Your task to perform on an android device: Go to Maps Image 0: 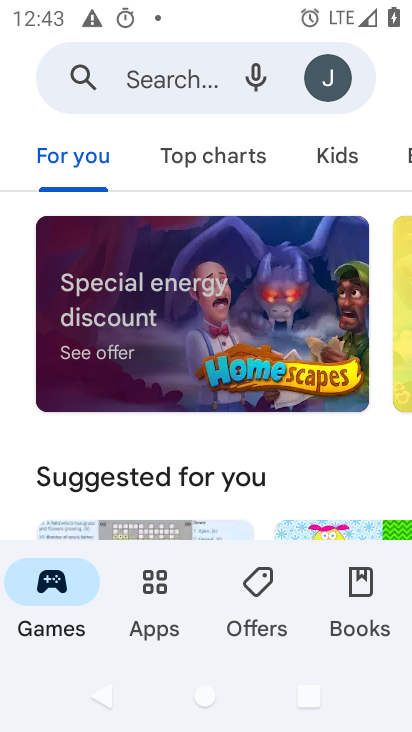
Step 0: task complete